Your task to perform on an android device: clear all cookies in the chrome app Image 0: 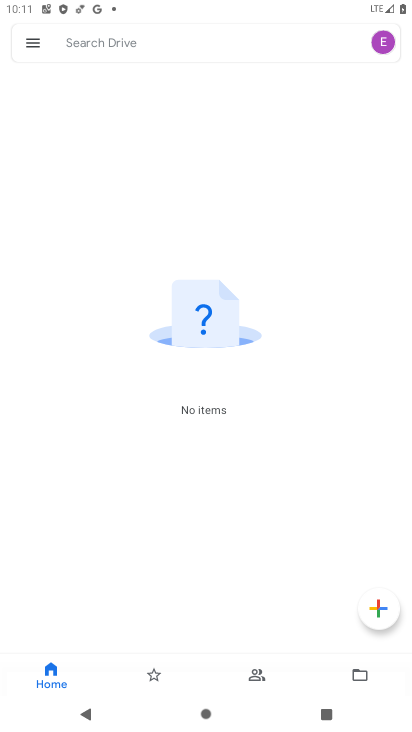
Step 0: press home button
Your task to perform on an android device: clear all cookies in the chrome app Image 1: 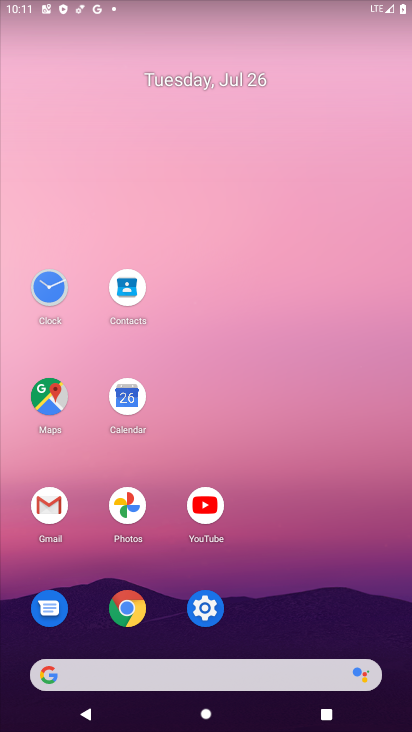
Step 1: click (132, 603)
Your task to perform on an android device: clear all cookies in the chrome app Image 2: 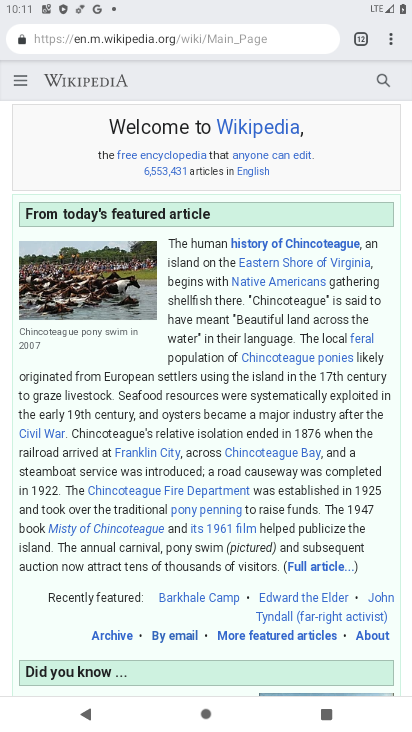
Step 2: click (387, 33)
Your task to perform on an android device: clear all cookies in the chrome app Image 3: 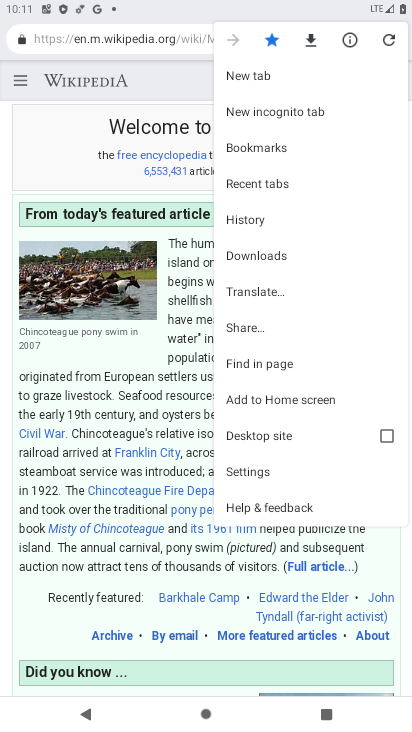
Step 3: click (246, 215)
Your task to perform on an android device: clear all cookies in the chrome app Image 4: 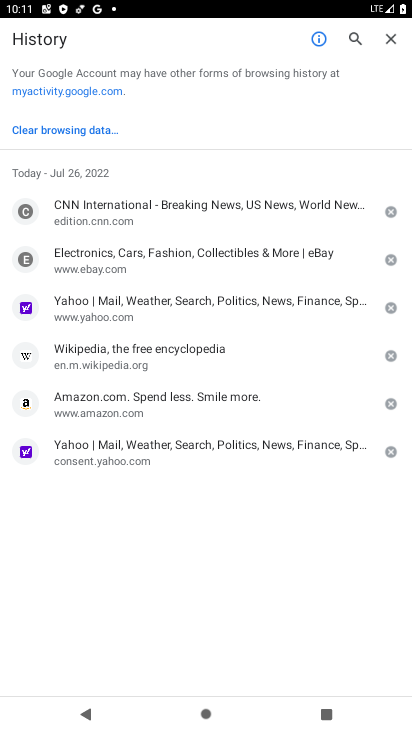
Step 4: click (68, 126)
Your task to perform on an android device: clear all cookies in the chrome app Image 5: 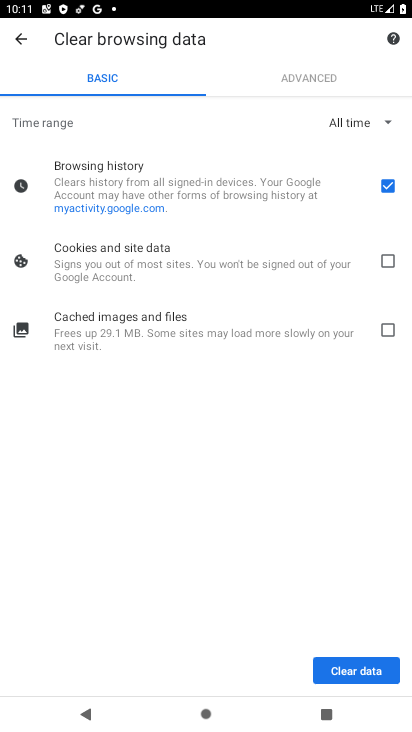
Step 5: click (382, 260)
Your task to perform on an android device: clear all cookies in the chrome app Image 6: 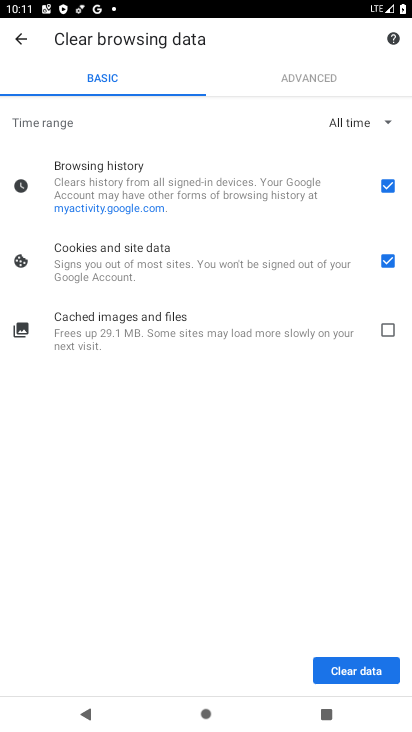
Step 6: click (383, 182)
Your task to perform on an android device: clear all cookies in the chrome app Image 7: 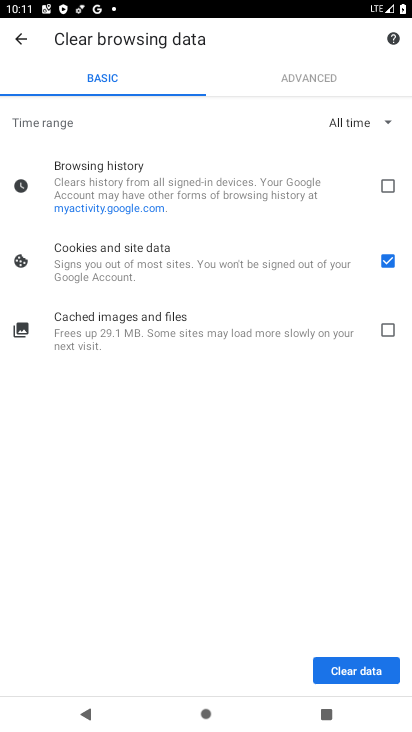
Step 7: click (359, 670)
Your task to perform on an android device: clear all cookies in the chrome app Image 8: 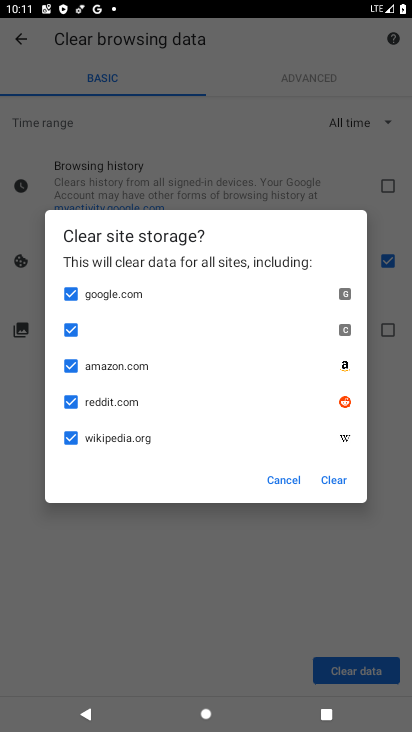
Step 8: click (329, 478)
Your task to perform on an android device: clear all cookies in the chrome app Image 9: 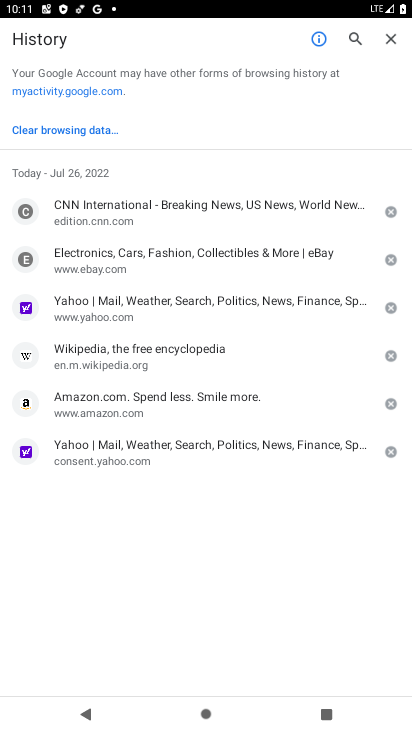
Step 9: task complete